Your task to perform on an android device: Go to display settings Image 0: 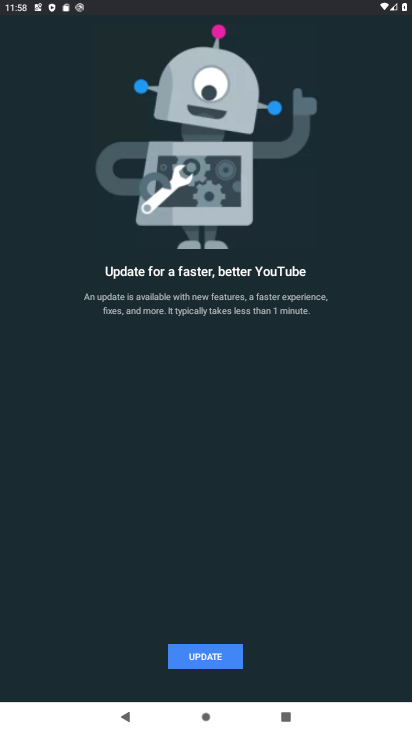
Step 0: press home button
Your task to perform on an android device: Go to display settings Image 1: 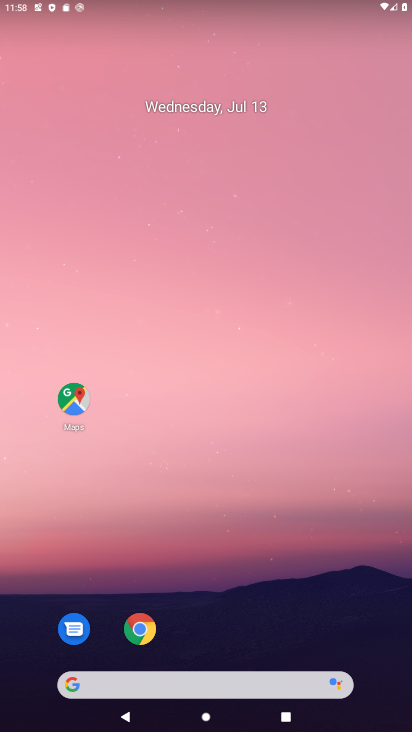
Step 1: drag from (263, 637) to (188, 231)
Your task to perform on an android device: Go to display settings Image 2: 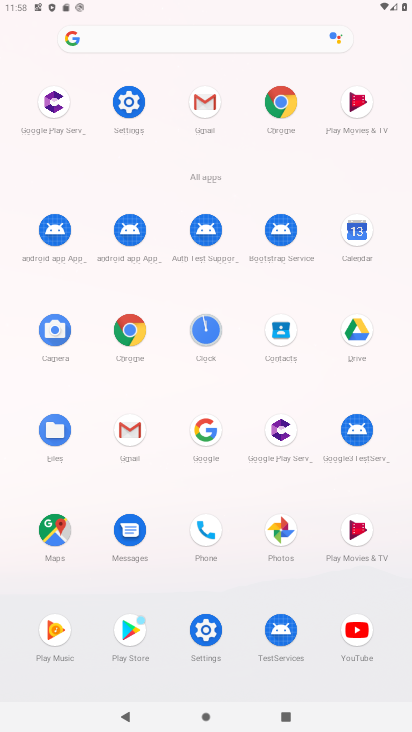
Step 2: click (130, 112)
Your task to perform on an android device: Go to display settings Image 3: 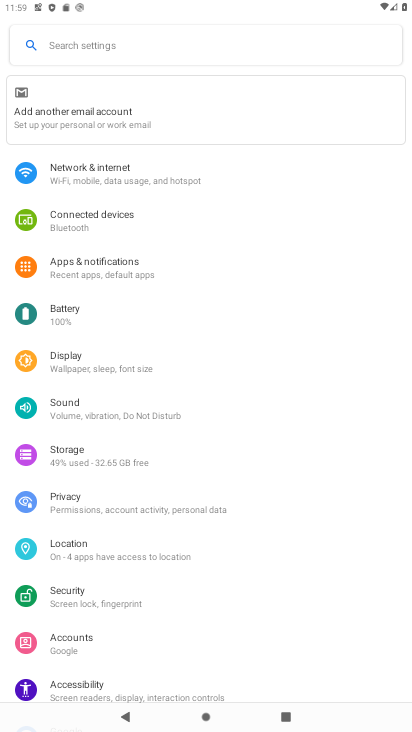
Step 3: click (148, 366)
Your task to perform on an android device: Go to display settings Image 4: 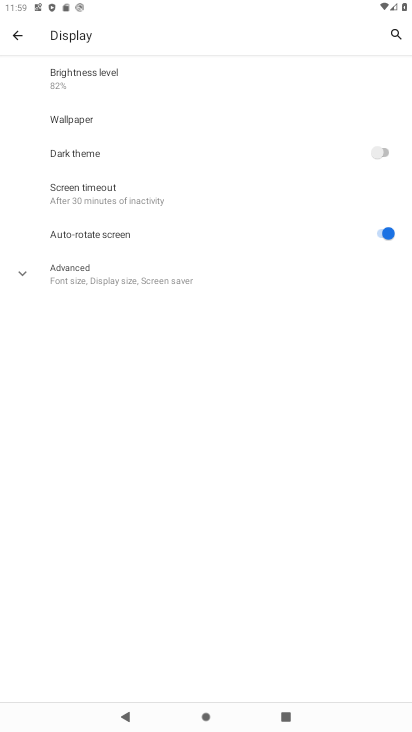
Step 4: task complete